Your task to perform on an android device: turn on the 24-hour format for clock Image 0: 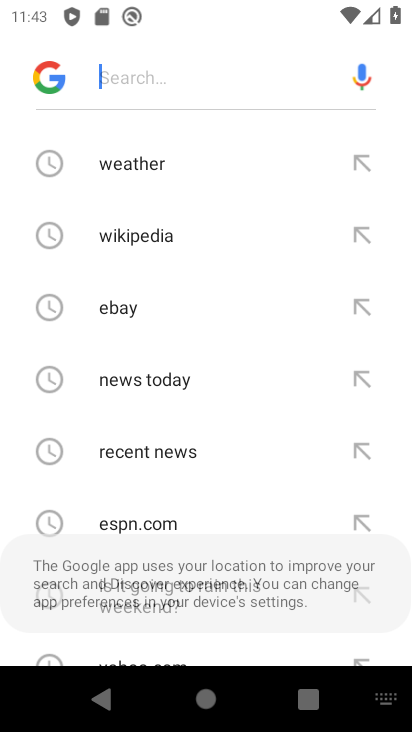
Step 0: press home button
Your task to perform on an android device: turn on the 24-hour format for clock Image 1: 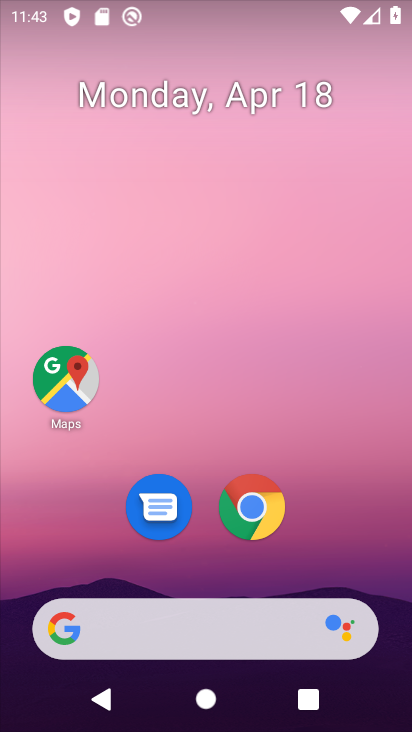
Step 1: drag from (218, 357) to (238, 97)
Your task to perform on an android device: turn on the 24-hour format for clock Image 2: 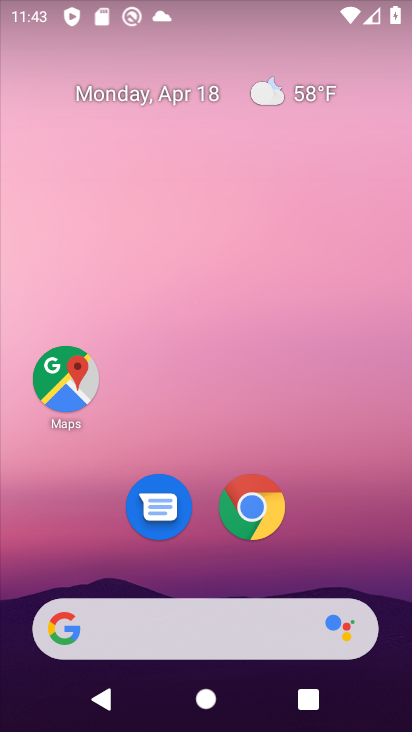
Step 2: drag from (206, 575) to (234, 121)
Your task to perform on an android device: turn on the 24-hour format for clock Image 3: 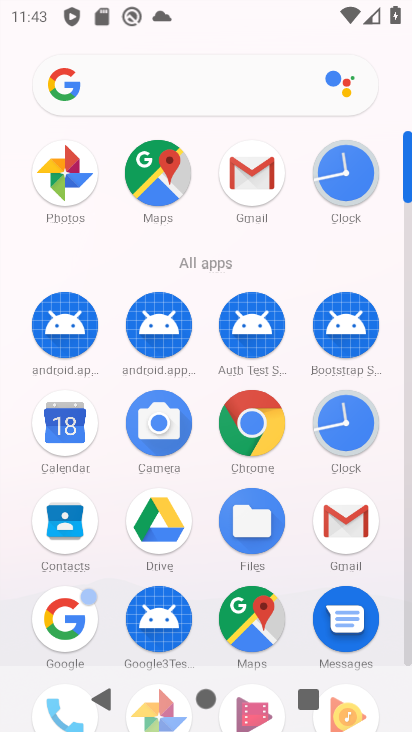
Step 3: click (345, 412)
Your task to perform on an android device: turn on the 24-hour format for clock Image 4: 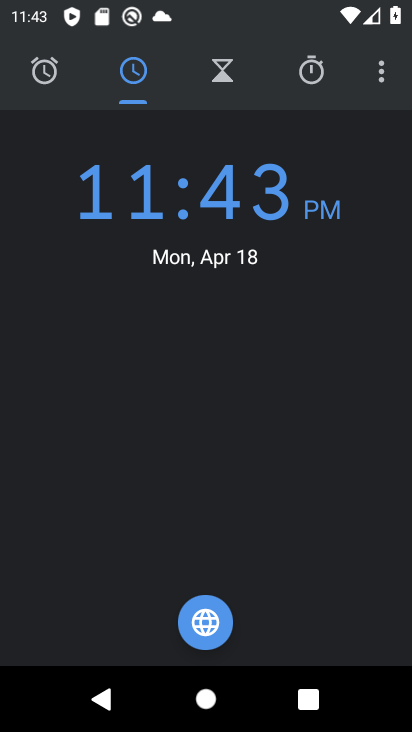
Step 4: click (378, 75)
Your task to perform on an android device: turn on the 24-hour format for clock Image 5: 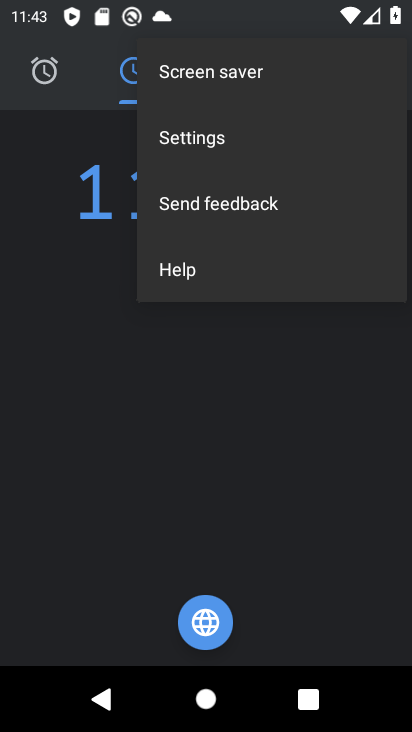
Step 5: click (236, 136)
Your task to perform on an android device: turn on the 24-hour format for clock Image 6: 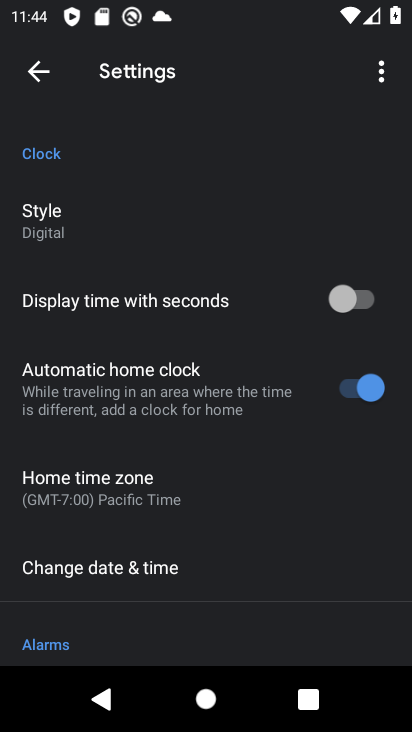
Step 6: click (193, 563)
Your task to perform on an android device: turn on the 24-hour format for clock Image 7: 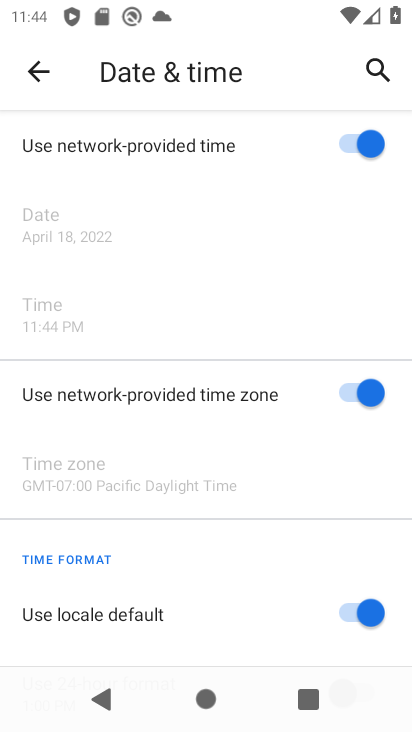
Step 7: drag from (219, 589) to (230, 140)
Your task to perform on an android device: turn on the 24-hour format for clock Image 8: 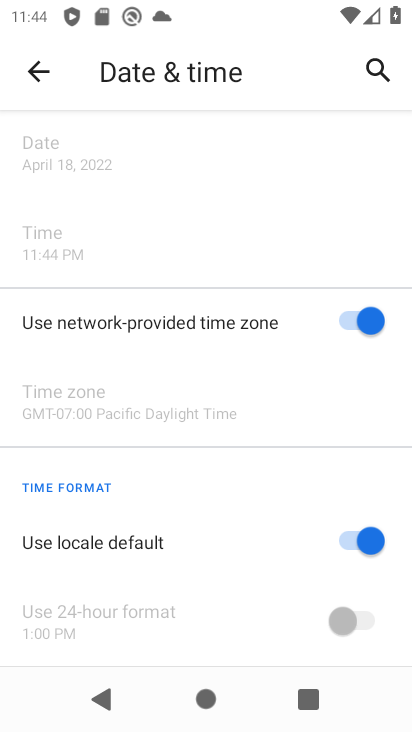
Step 8: click (355, 533)
Your task to perform on an android device: turn on the 24-hour format for clock Image 9: 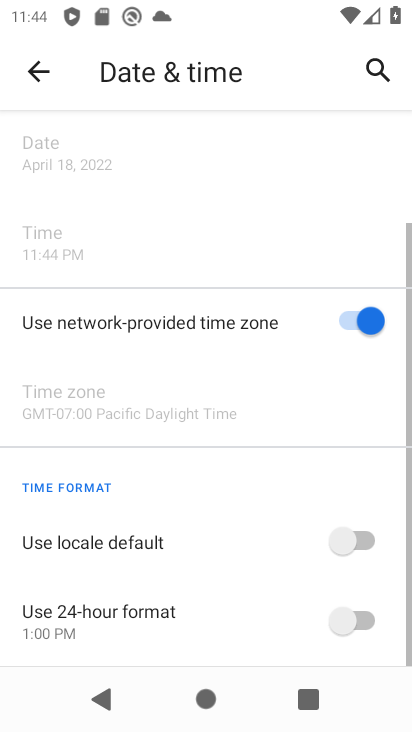
Step 9: click (351, 618)
Your task to perform on an android device: turn on the 24-hour format for clock Image 10: 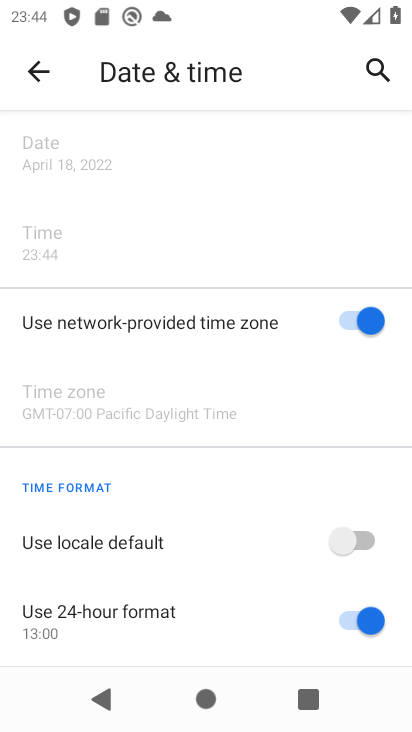
Step 10: task complete